Your task to perform on an android device: set default search engine in the chrome app Image 0: 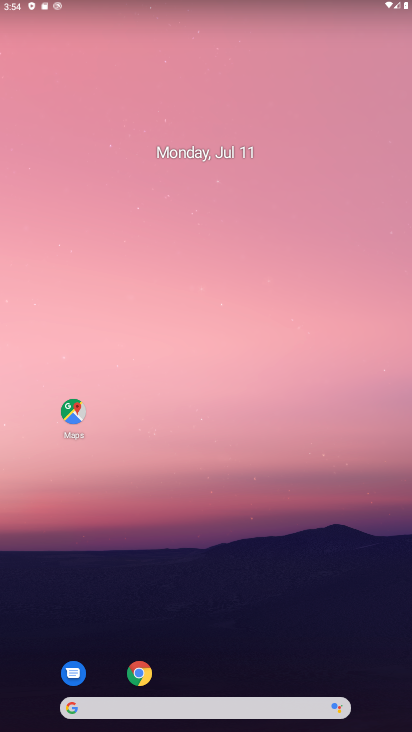
Step 0: drag from (379, 667) to (90, 181)
Your task to perform on an android device: set default search engine in the chrome app Image 1: 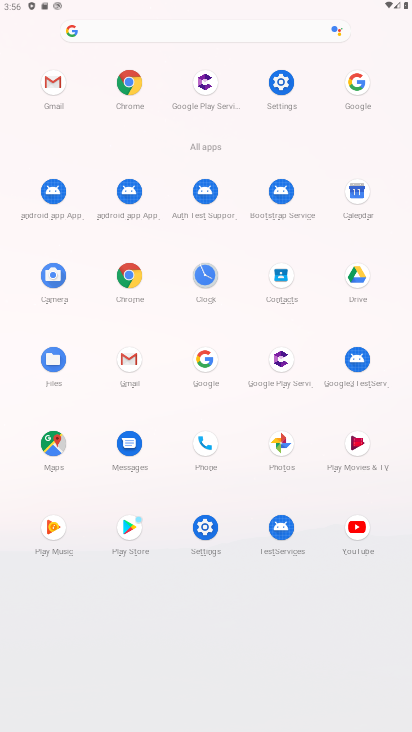
Step 1: click (141, 275)
Your task to perform on an android device: set default search engine in the chrome app Image 2: 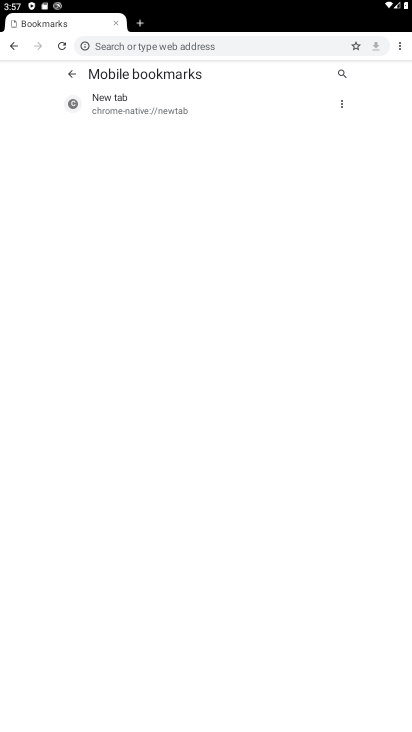
Step 2: press back button
Your task to perform on an android device: set default search engine in the chrome app Image 3: 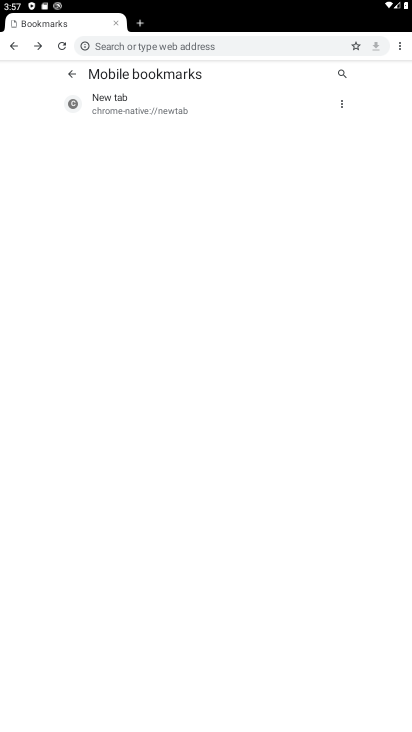
Step 3: click (399, 45)
Your task to perform on an android device: set default search engine in the chrome app Image 4: 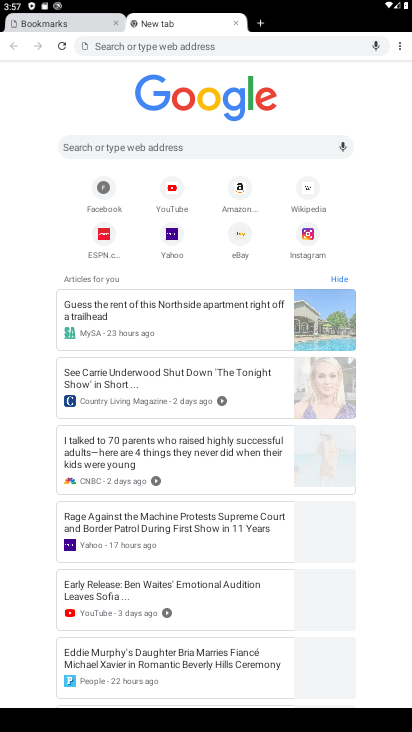
Step 4: click (399, 45)
Your task to perform on an android device: set default search engine in the chrome app Image 5: 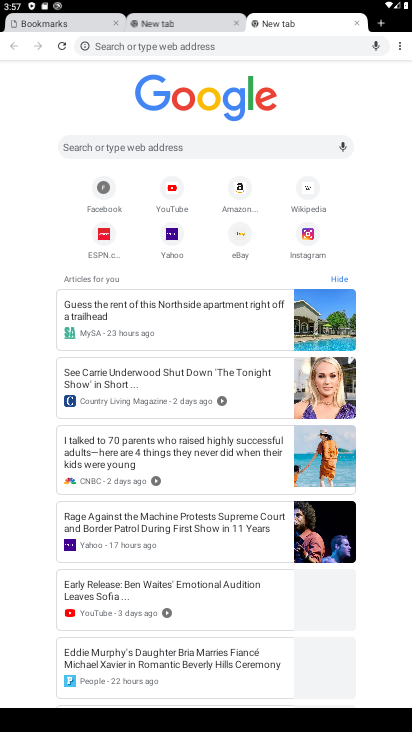
Step 5: click (399, 45)
Your task to perform on an android device: set default search engine in the chrome app Image 6: 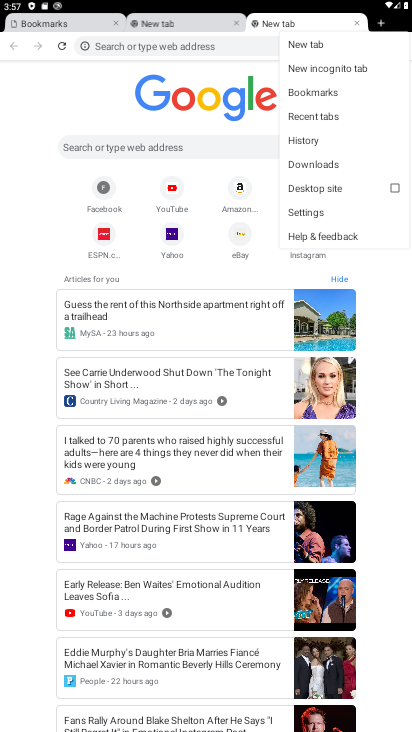
Step 6: click (316, 214)
Your task to perform on an android device: set default search engine in the chrome app Image 7: 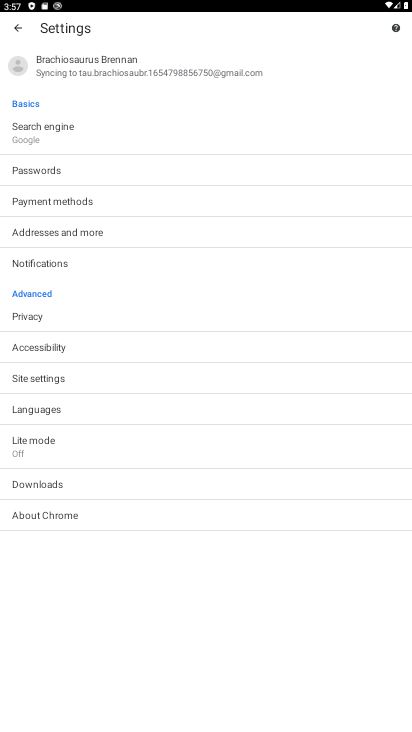
Step 7: click (52, 138)
Your task to perform on an android device: set default search engine in the chrome app Image 8: 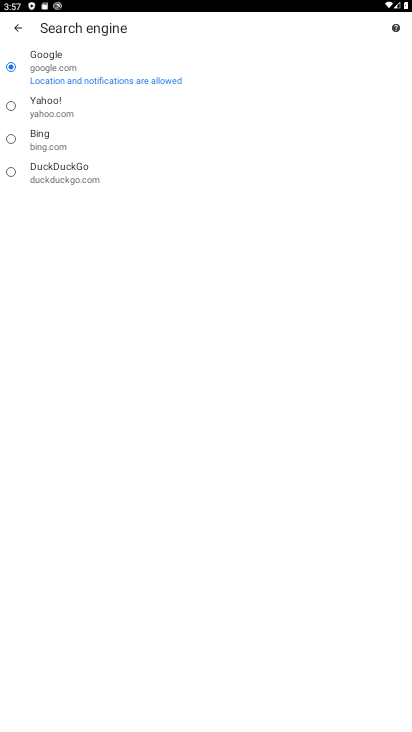
Step 8: click (54, 140)
Your task to perform on an android device: set default search engine in the chrome app Image 9: 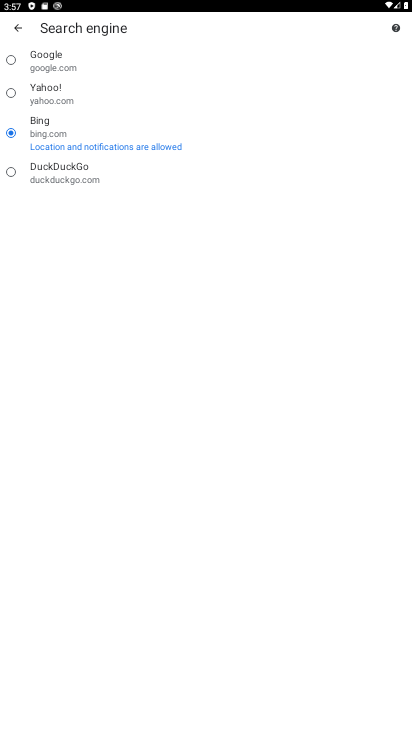
Step 9: task complete